Your task to perform on an android device: search for starred emails in the gmail app Image 0: 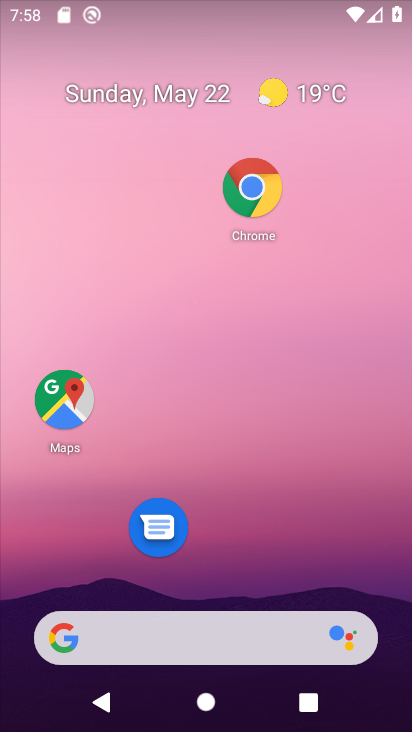
Step 0: press home button
Your task to perform on an android device: search for starred emails in the gmail app Image 1: 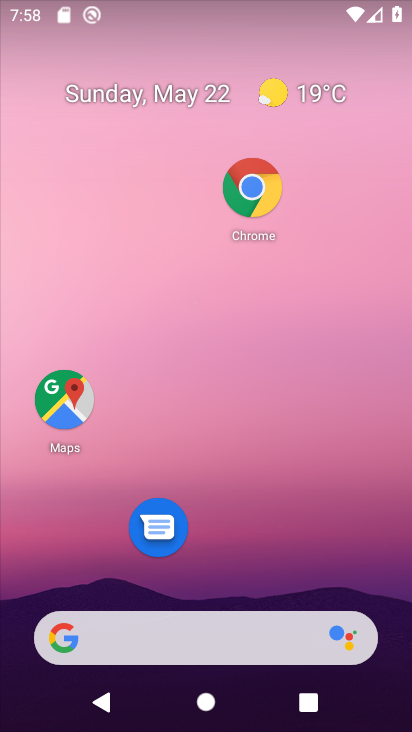
Step 1: drag from (211, 583) to (222, 114)
Your task to perform on an android device: search for starred emails in the gmail app Image 2: 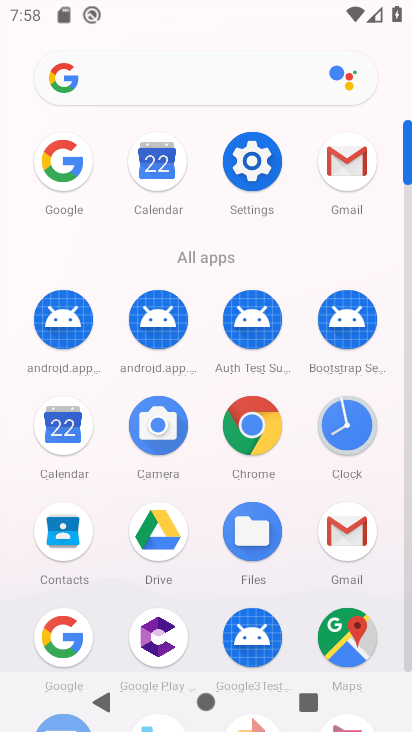
Step 2: click (347, 154)
Your task to perform on an android device: search for starred emails in the gmail app Image 3: 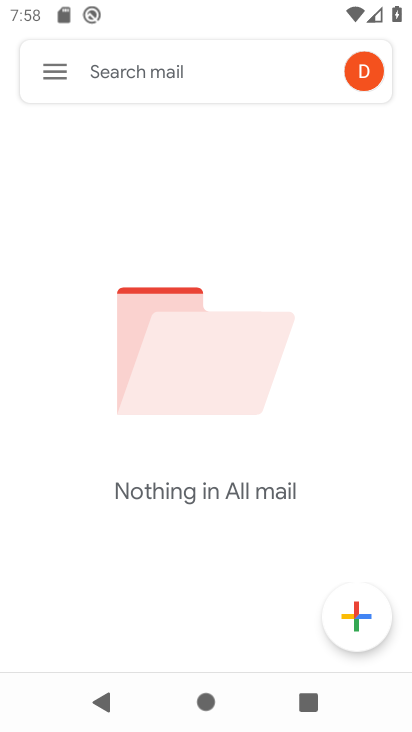
Step 3: click (53, 69)
Your task to perform on an android device: search for starred emails in the gmail app Image 4: 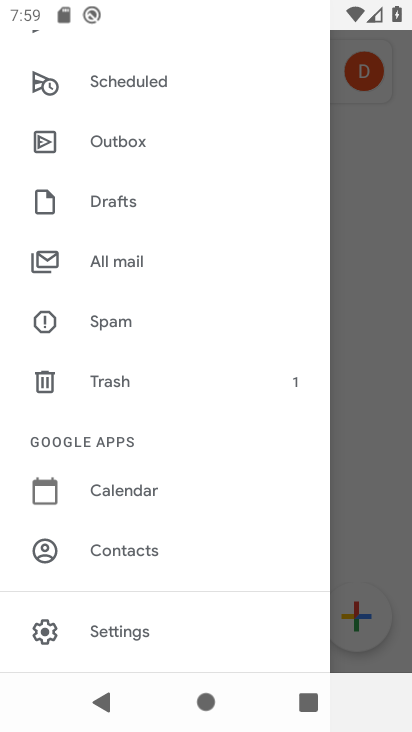
Step 4: drag from (142, 124) to (205, 500)
Your task to perform on an android device: search for starred emails in the gmail app Image 5: 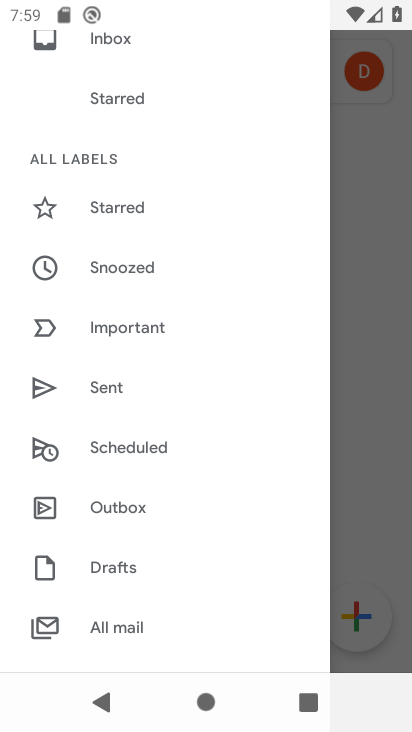
Step 5: click (150, 202)
Your task to perform on an android device: search for starred emails in the gmail app Image 6: 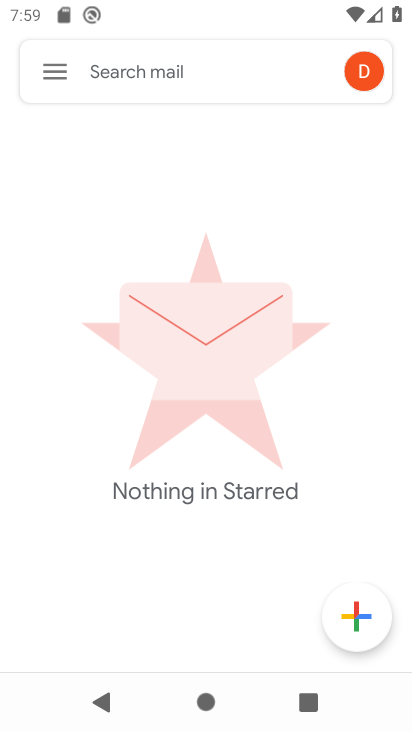
Step 6: task complete